Your task to perform on an android device: Show me popular games on the Play Store Image 0: 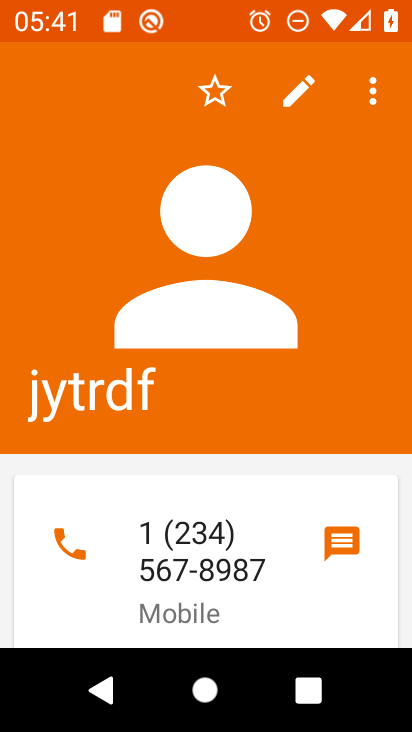
Step 0: press home button
Your task to perform on an android device: Show me popular games on the Play Store Image 1: 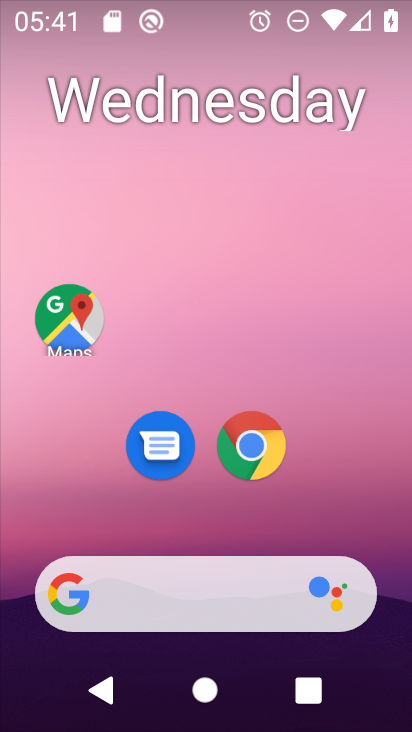
Step 1: drag from (192, 528) to (216, 15)
Your task to perform on an android device: Show me popular games on the Play Store Image 2: 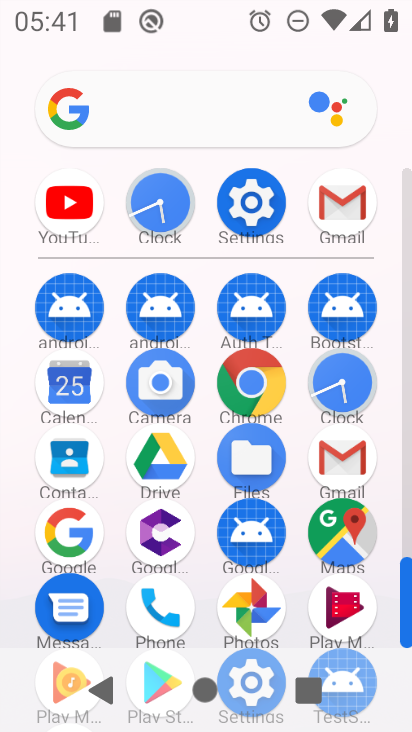
Step 2: drag from (208, 626) to (191, 174)
Your task to perform on an android device: Show me popular games on the Play Store Image 3: 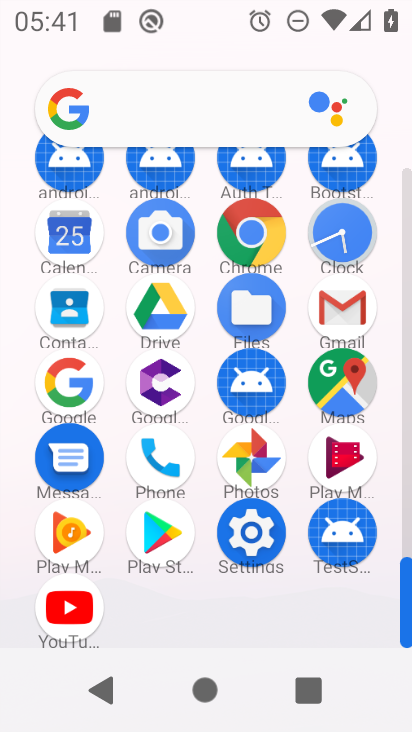
Step 3: click (152, 538)
Your task to perform on an android device: Show me popular games on the Play Store Image 4: 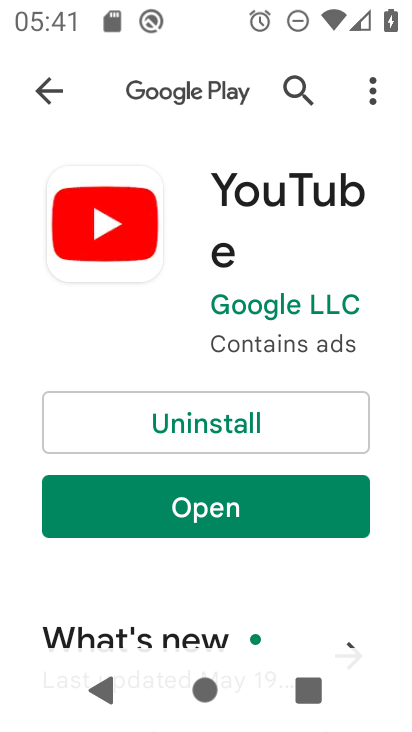
Step 4: click (58, 115)
Your task to perform on an android device: Show me popular games on the Play Store Image 5: 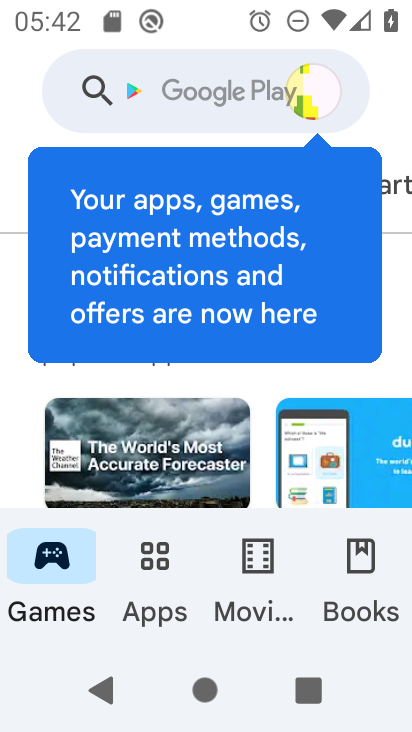
Step 5: click (156, 579)
Your task to perform on an android device: Show me popular games on the Play Store Image 6: 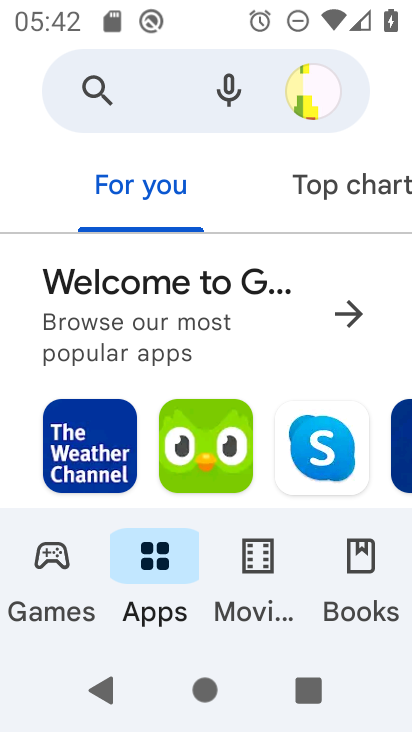
Step 6: click (387, 181)
Your task to perform on an android device: Show me popular games on the Play Store Image 7: 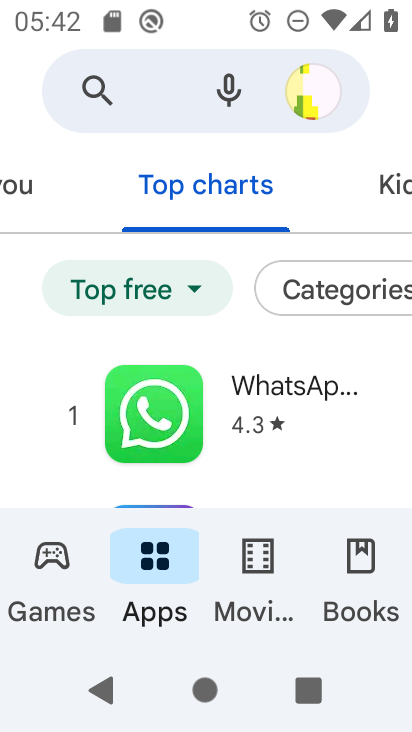
Step 7: task complete